Your task to perform on an android device: Open Maps and search for coffee Image 0: 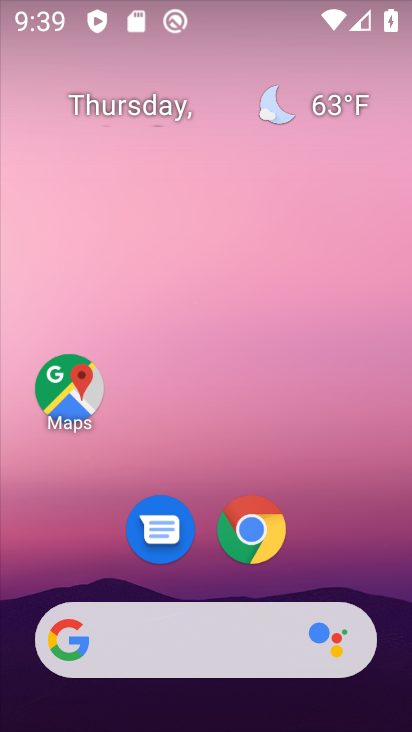
Step 0: click (77, 409)
Your task to perform on an android device: Open Maps and search for coffee Image 1: 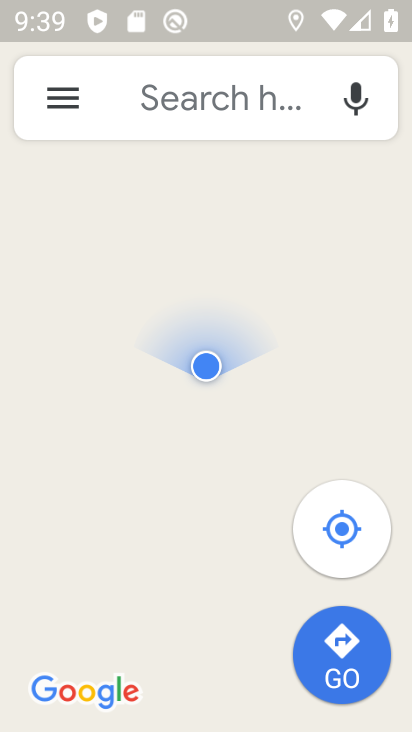
Step 1: click (68, 117)
Your task to perform on an android device: Open Maps and search for coffee Image 2: 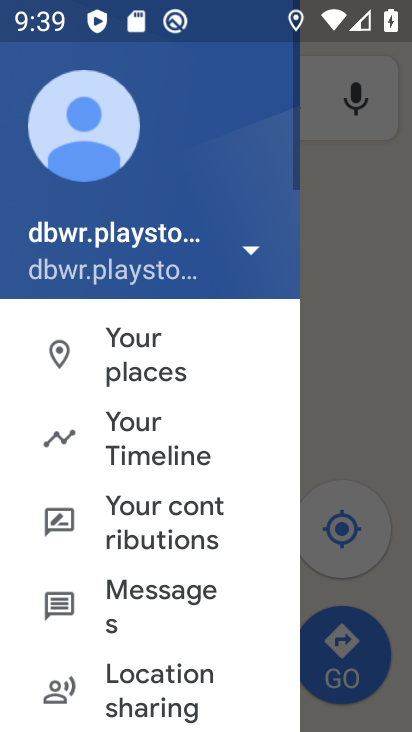
Step 2: click (387, 157)
Your task to perform on an android device: Open Maps and search for coffee Image 3: 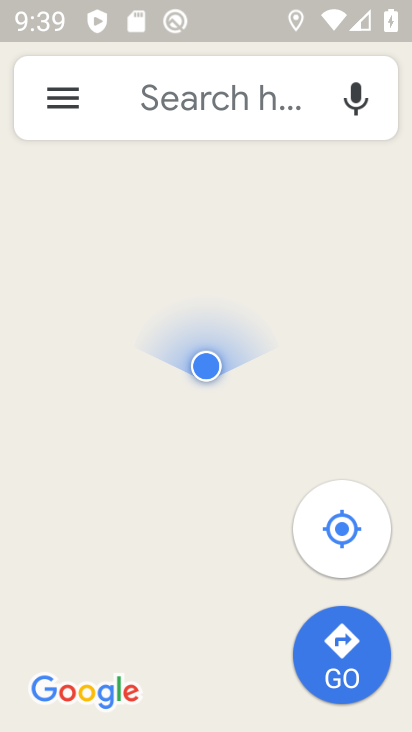
Step 3: click (260, 88)
Your task to perform on an android device: Open Maps and search for coffee Image 4: 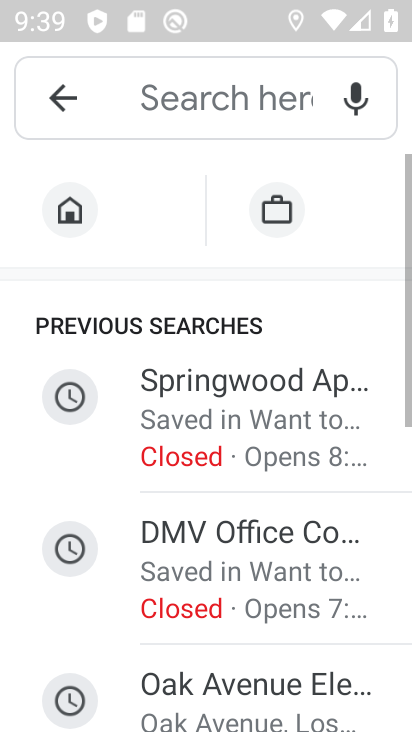
Step 4: click (206, 104)
Your task to perform on an android device: Open Maps and search for coffee Image 5: 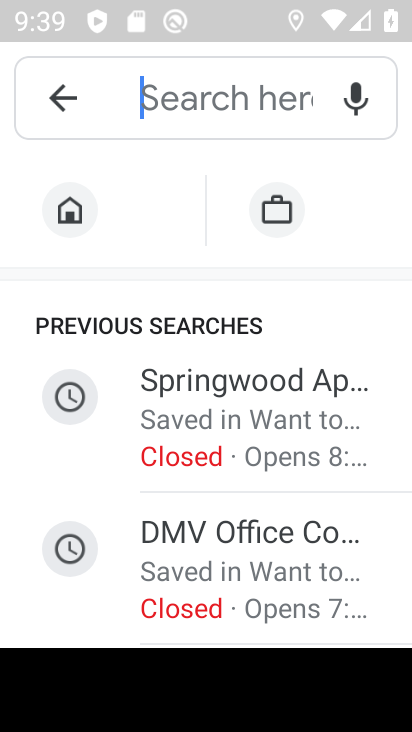
Step 5: type "coffee"
Your task to perform on an android device: Open Maps and search for coffee Image 6: 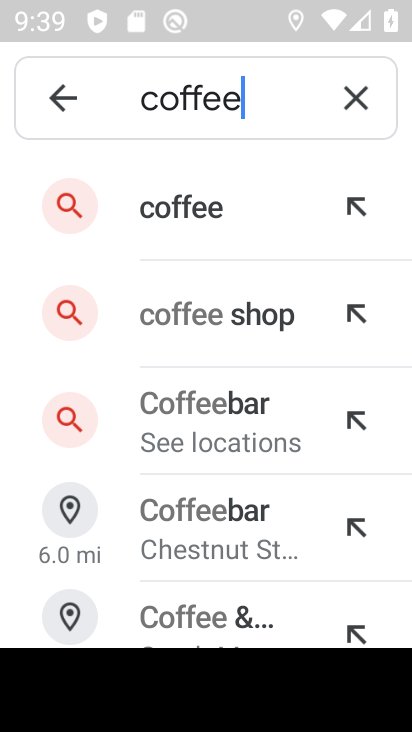
Step 6: click (197, 231)
Your task to perform on an android device: Open Maps and search for coffee Image 7: 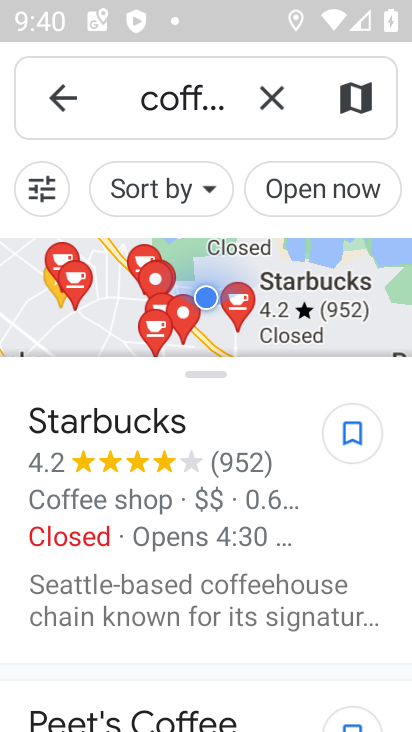
Step 7: task complete